Your task to perform on an android device: visit the assistant section in the google photos Image 0: 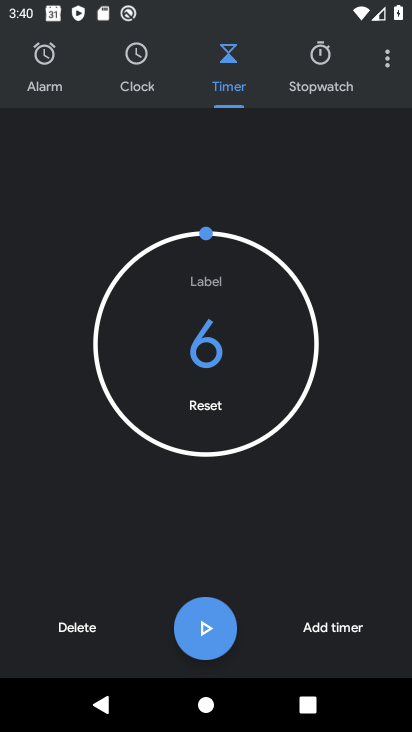
Step 0: press home button
Your task to perform on an android device: visit the assistant section in the google photos Image 1: 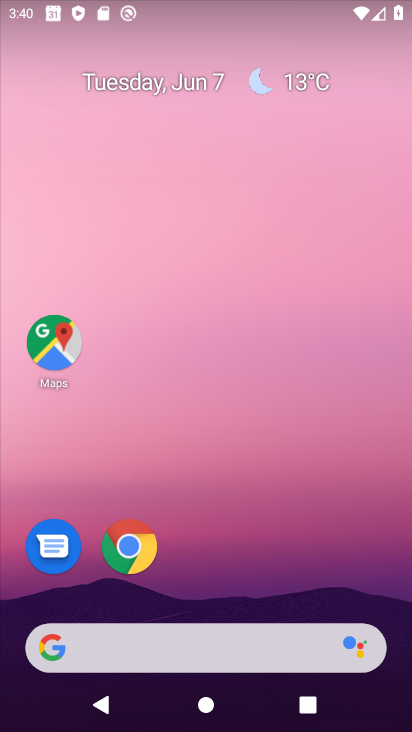
Step 1: drag from (169, 569) to (145, 116)
Your task to perform on an android device: visit the assistant section in the google photos Image 2: 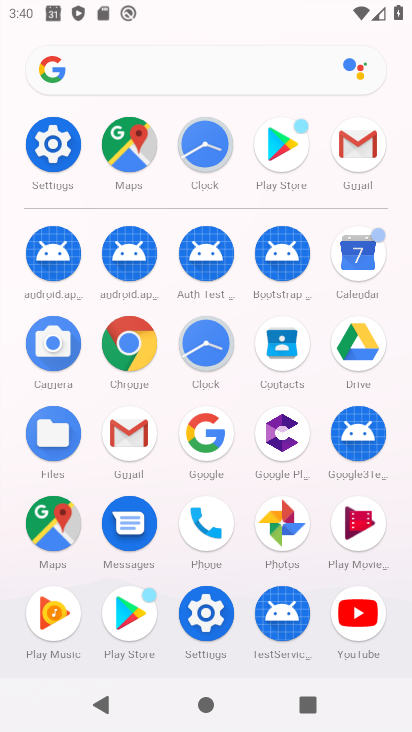
Step 2: click (282, 526)
Your task to perform on an android device: visit the assistant section in the google photos Image 3: 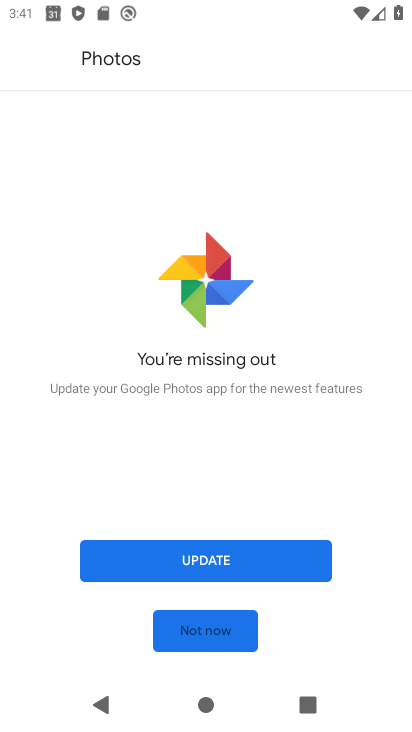
Step 3: click (197, 638)
Your task to perform on an android device: visit the assistant section in the google photos Image 4: 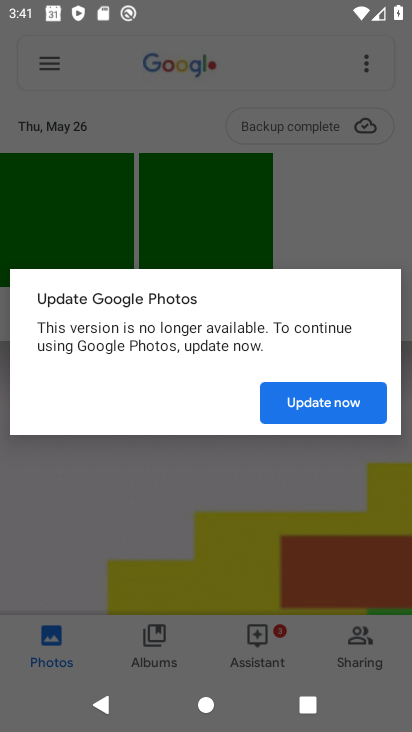
Step 4: click (298, 399)
Your task to perform on an android device: visit the assistant section in the google photos Image 5: 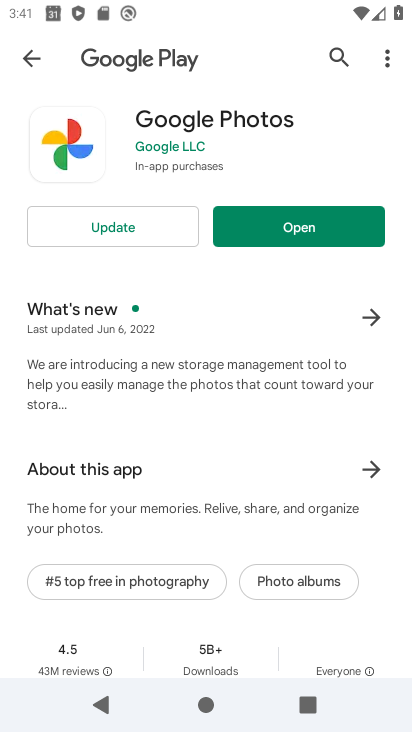
Step 5: click (298, 399)
Your task to perform on an android device: visit the assistant section in the google photos Image 6: 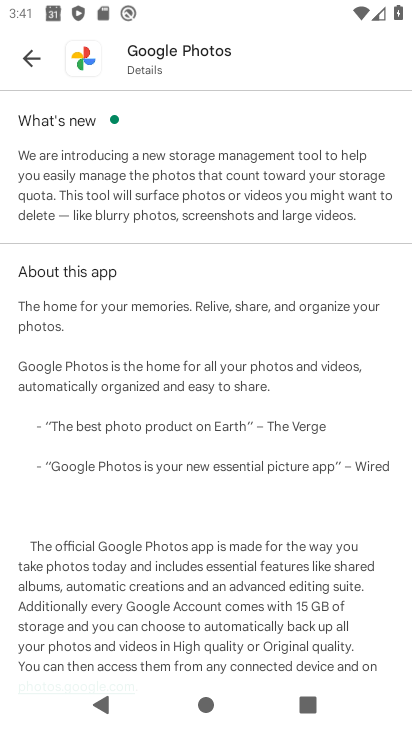
Step 6: drag from (265, 140) to (287, 552)
Your task to perform on an android device: visit the assistant section in the google photos Image 7: 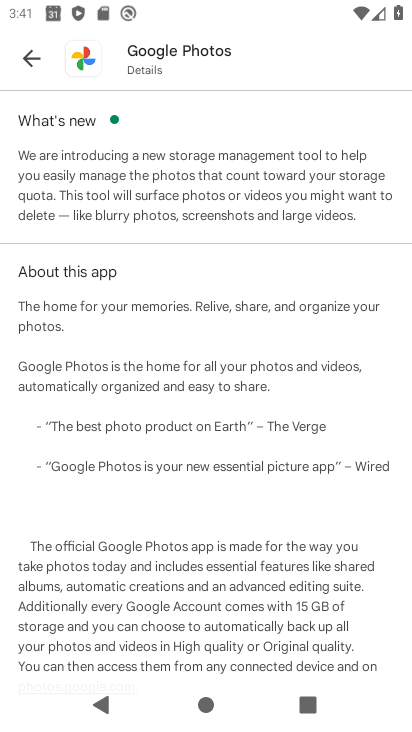
Step 7: click (36, 62)
Your task to perform on an android device: visit the assistant section in the google photos Image 8: 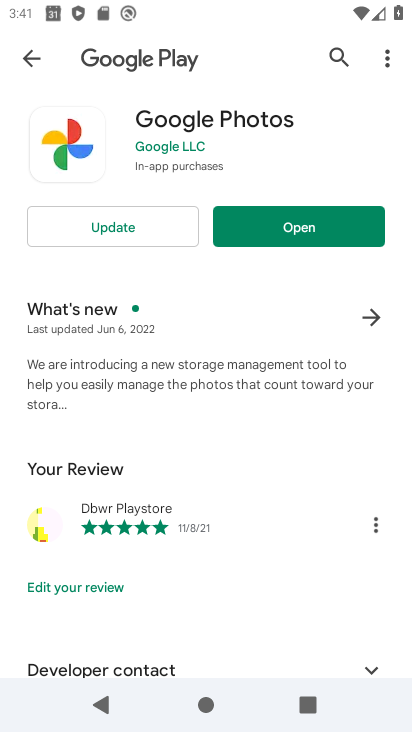
Step 8: click (310, 213)
Your task to perform on an android device: visit the assistant section in the google photos Image 9: 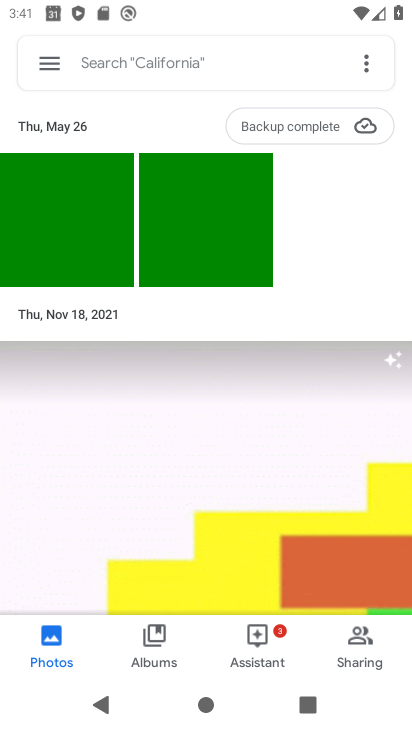
Step 9: click (259, 651)
Your task to perform on an android device: visit the assistant section in the google photos Image 10: 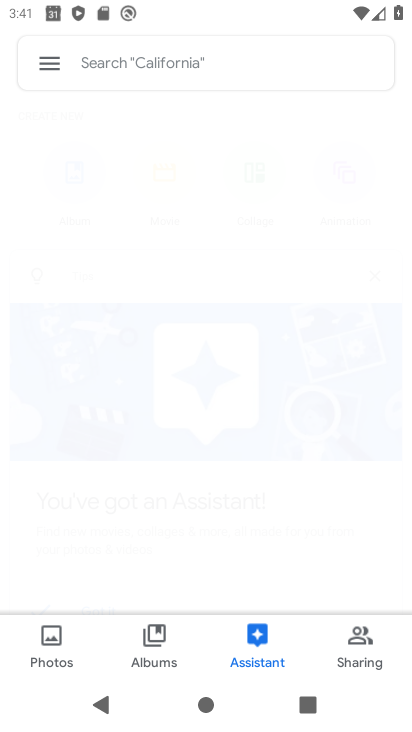
Step 10: task complete